Your task to perform on an android device: turn on improve location accuracy Image 0: 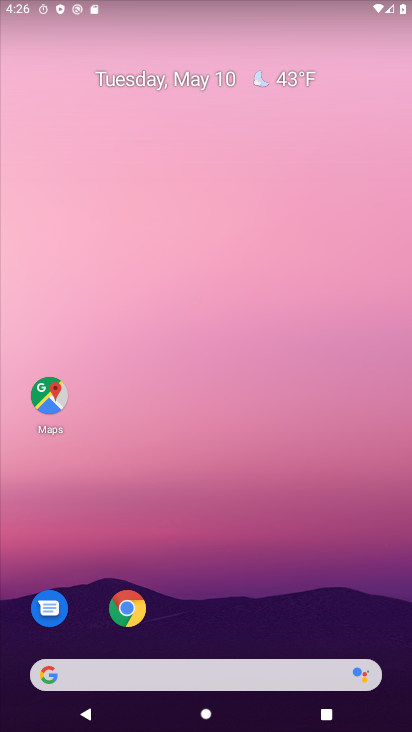
Step 0: drag from (270, 695) to (53, 126)
Your task to perform on an android device: turn on improve location accuracy Image 1: 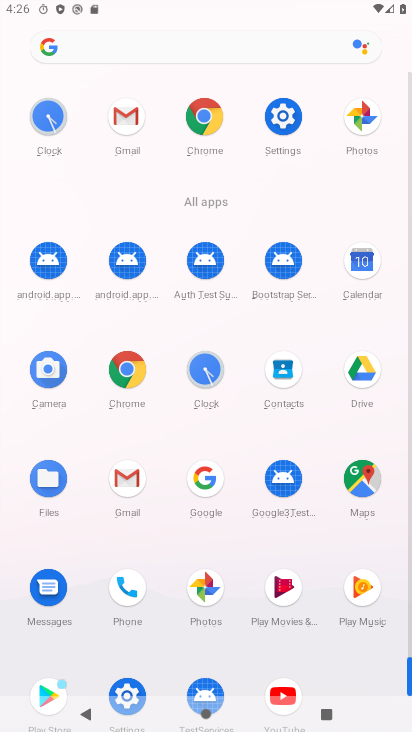
Step 1: click (280, 118)
Your task to perform on an android device: turn on improve location accuracy Image 2: 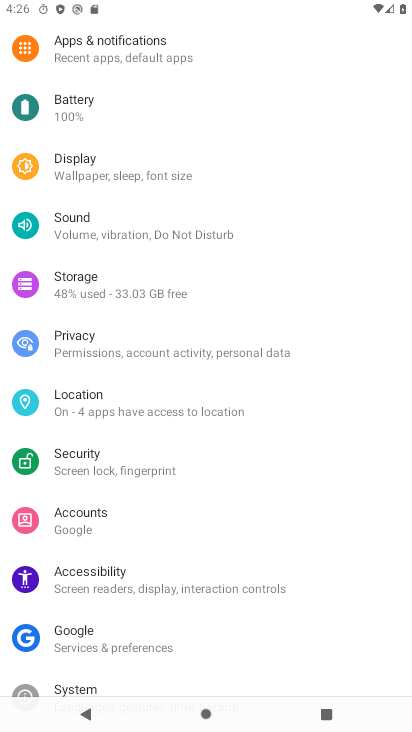
Step 2: click (82, 405)
Your task to perform on an android device: turn on improve location accuracy Image 3: 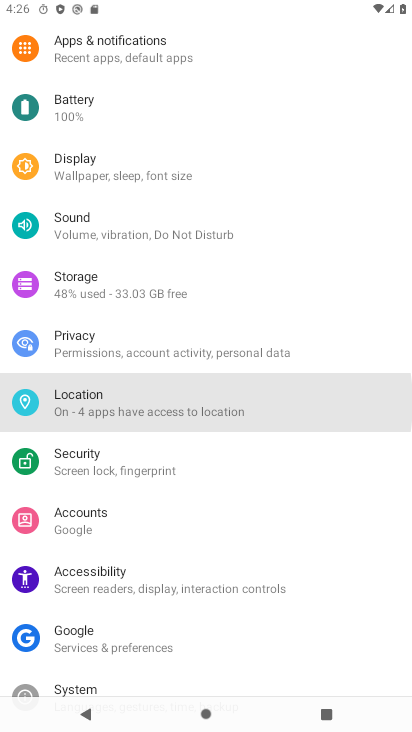
Step 3: click (82, 405)
Your task to perform on an android device: turn on improve location accuracy Image 4: 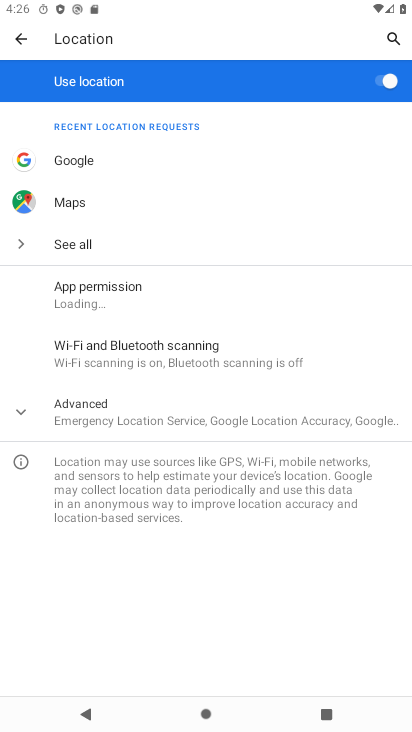
Step 4: click (90, 294)
Your task to perform on an android device: turn on improve location accuracy Image 5: 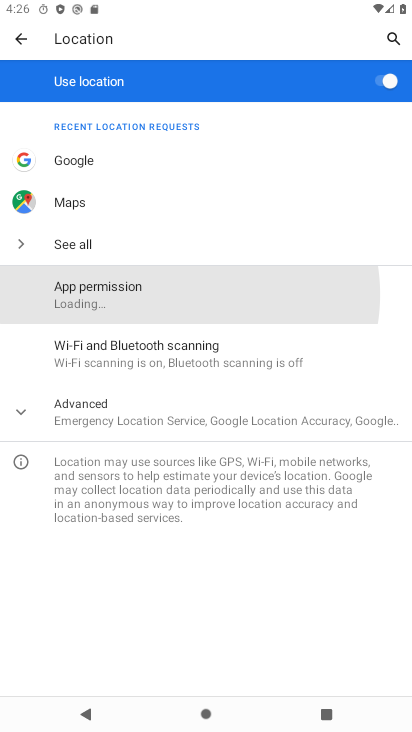
Step 5: click (89, 294)
Your task to perform on an android device: turn on improve location accuracy Image 6: 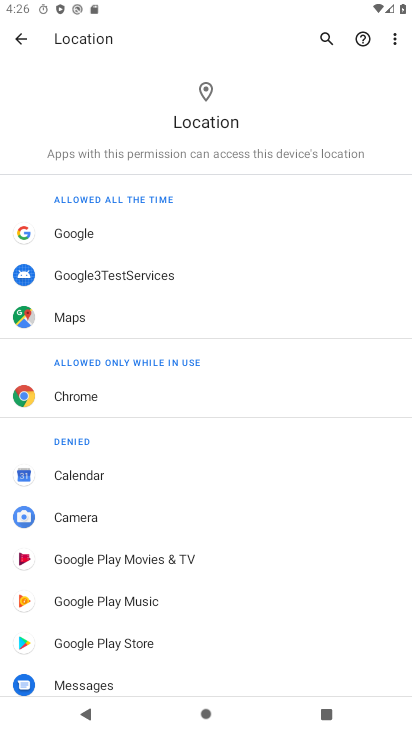
Step 6: drag from (163, 542) to (7, 222)
Your task to perform on an android device: turn on improve location accuracy Image 7: 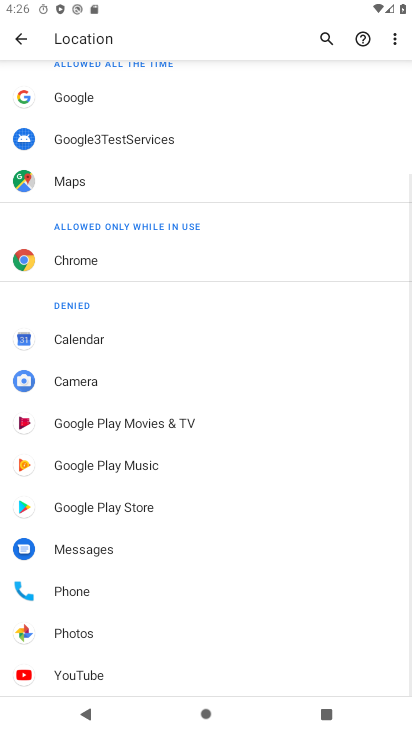
Step 7: click (18, 40)
Your task to perform on an android device: turn on improve location accuracy Image 8: 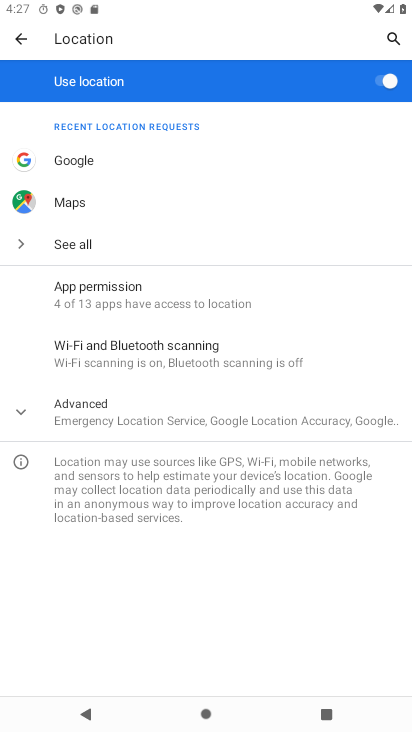
Step 8: click (101, 416)
Your task to perform on an android device: turn on improve location accuracy Image 9: 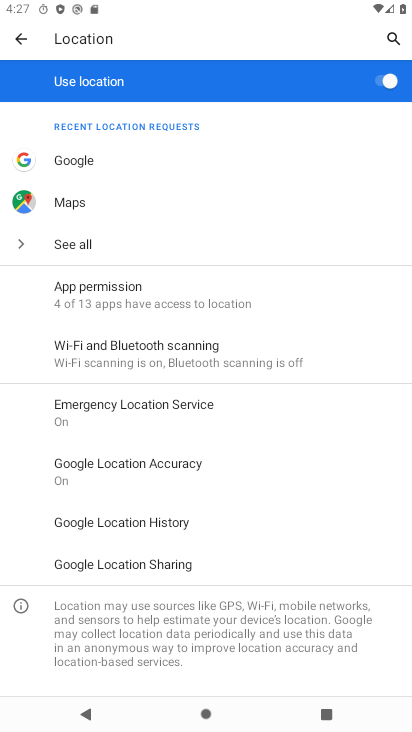
Step 9: click (128, 464)
Your task to perform on an android device: turn on improve location accuracy Image 10: 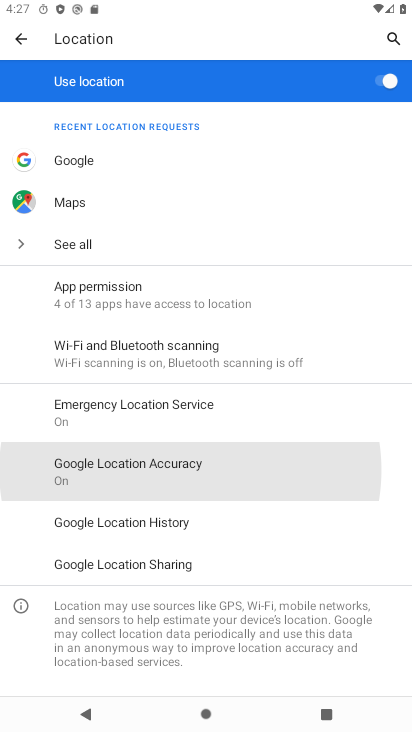
Step 10: click (122, 456)
Your task to perform on an android device: turn on improve location accuracy Image 11: 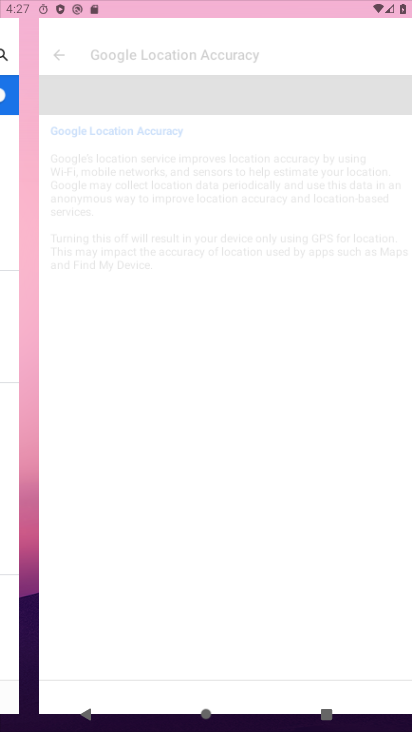
Step 11: click (113, 463)
Your task to perform on an android device: turn on improve location accuracy Image 12: 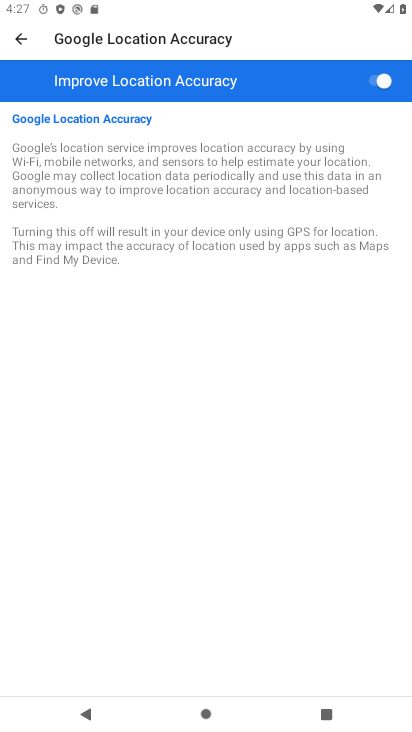
Step 12: click (376, 79)
Your task to perform on an android device: turn on improve location accuracy Image 13: 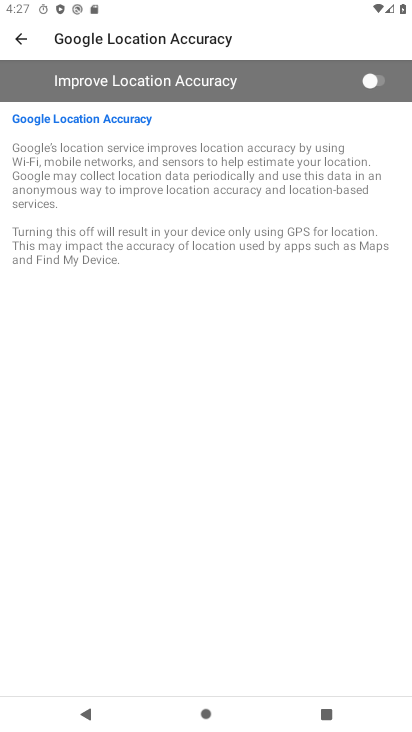
Step 13: click (369, 81)
Your task to perform on an android device: turn on improve location accuracy Image 14: 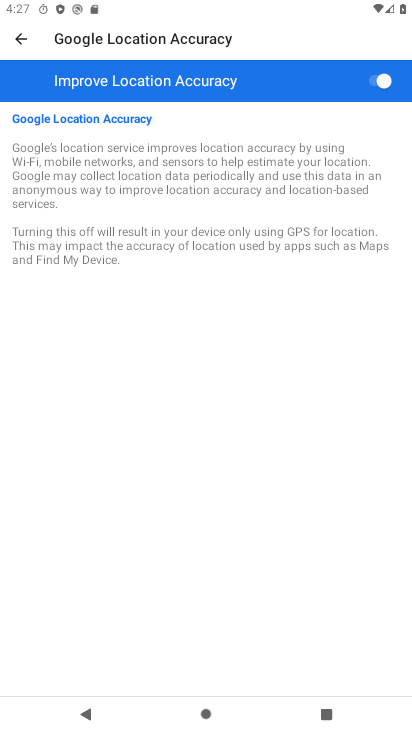
Step 14: task complete